Your task to perform on an android device: Open Yahoo.com Image 0: 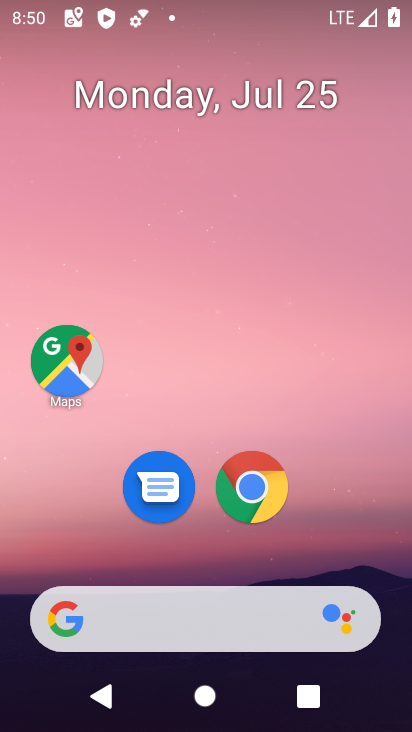
Step 0: click (235, 497)
Your task to perform on an android device: Open Yahoo.com Image 1: 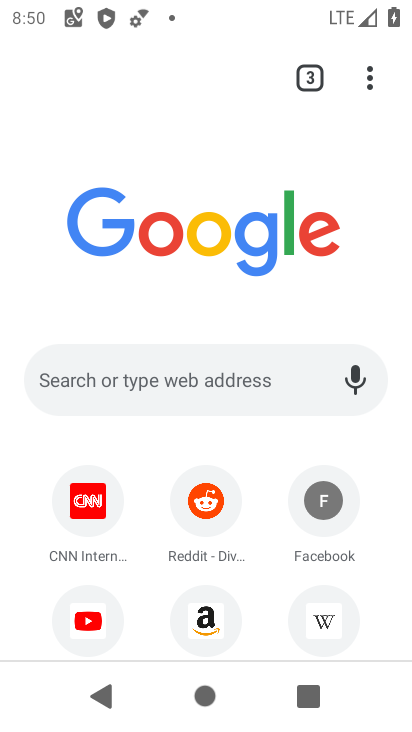
Step 1: drag from (276, 616) to (297, 572)
Your task to perform on an android device: Open Yahoo.com Image 2: 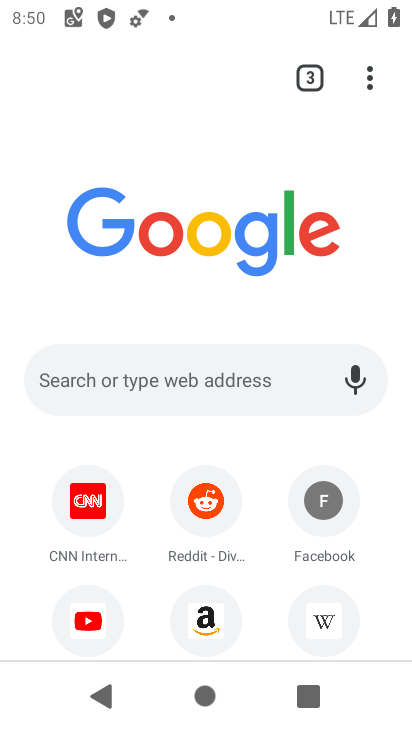
Step 2: click (124, 373)
Your task to perform on an android device: Open Yahoo.com Image 3: 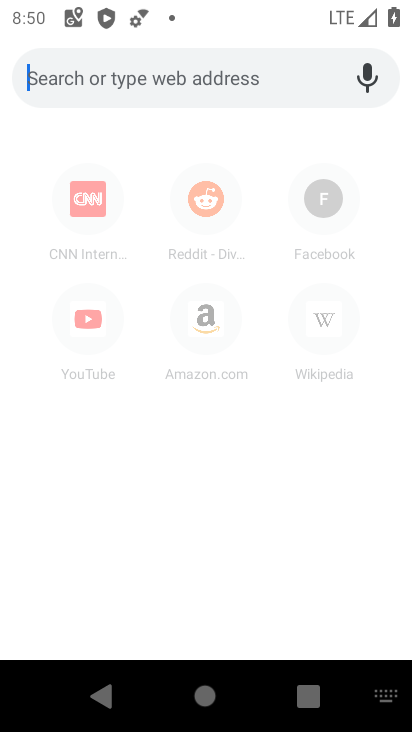
Step 3: click (132, 80)
Your task to perform on an android device: Open Yahoo.com Image 4: 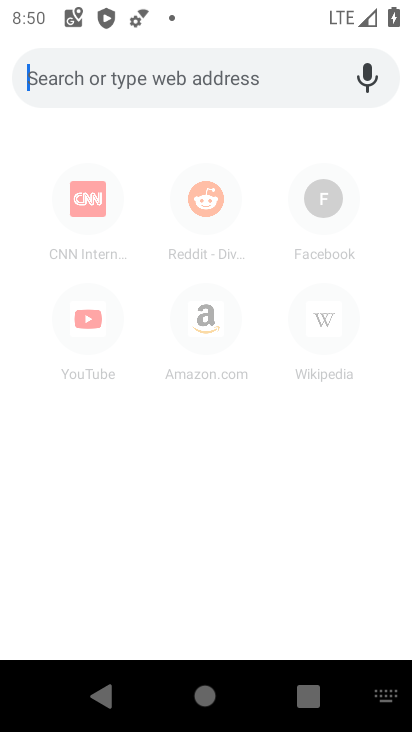
Step 4: type "yahoo.com"
Your task to perform on an android device: Open Yahoo.com Image 5: 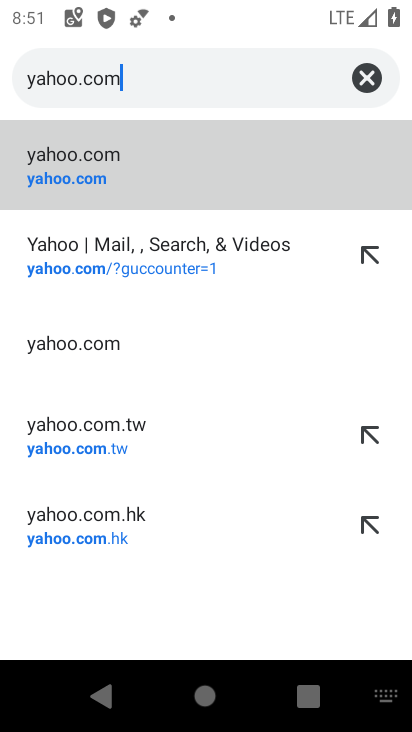
Step 5: click (131, 178)
Your task to perform on an android device: Open Yahoo.com Image 6: 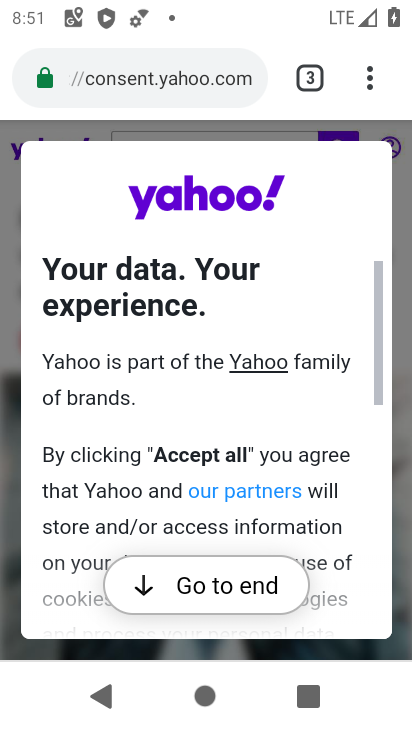
Step 6: task complete